Your task to perform on an android device: add a contact in the contacts app Image 0: 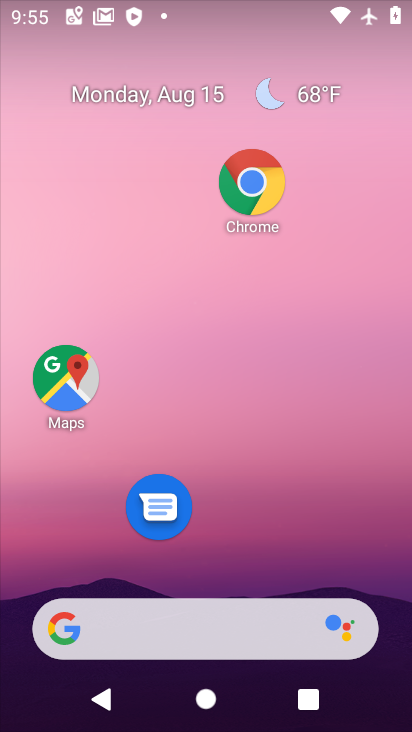
Step 0: task complete